Your task to perform on an android device: turn off airplane mode Image 0: 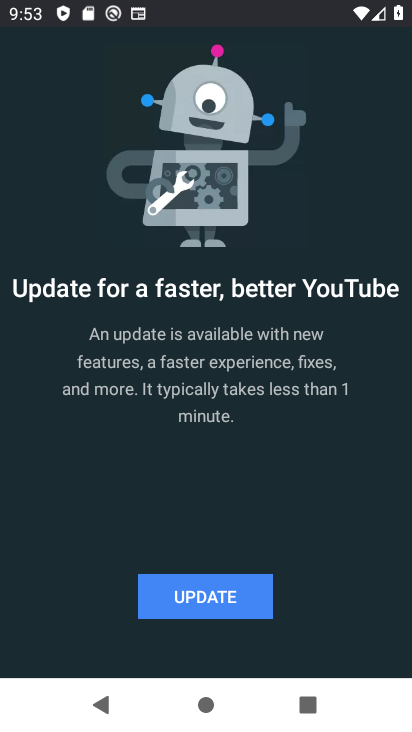
Step 0: press back button
Your task to perform on an android device: turn off airplane mode Image 1: 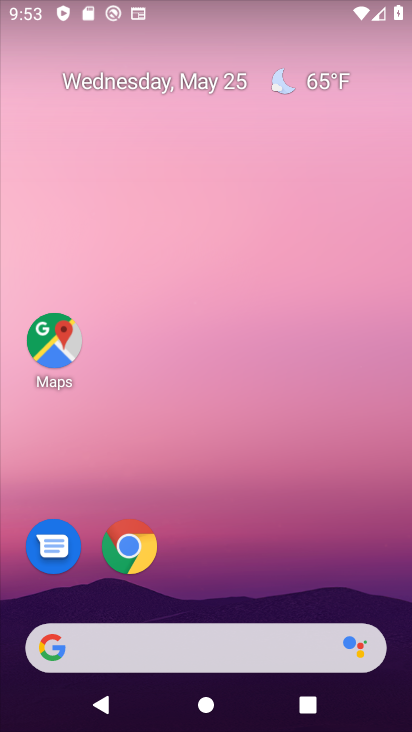
Step 1: drag from (279, 533) to (221, 17)
Your task to perform on an android device: turn off airplane mode Image 2: 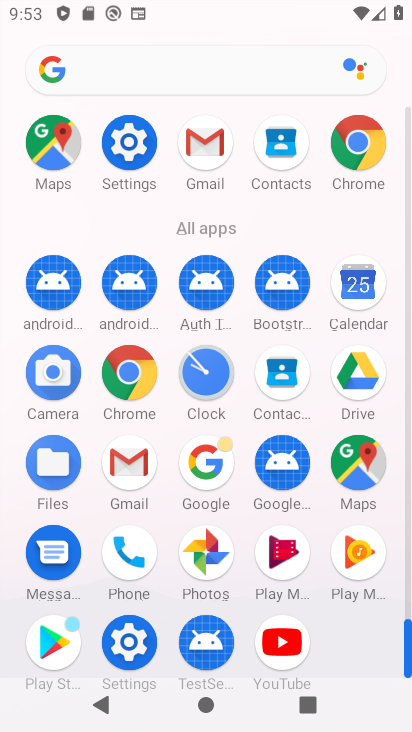
Step 2: click (130, 638)
Your task to perform on an android device: turn off airplane mode Image 3: 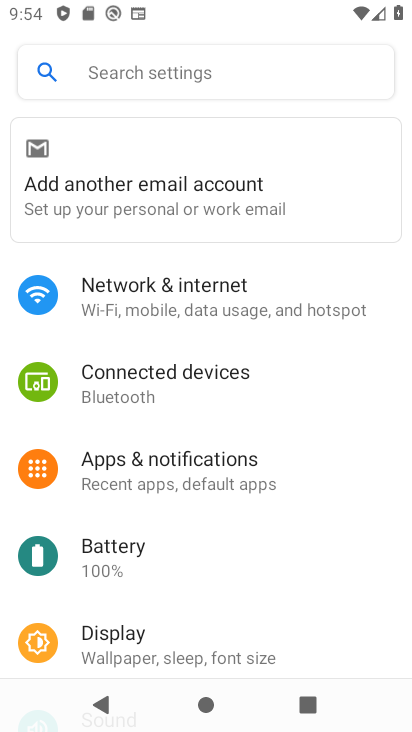
Step 3: click (221, 306)
Your task to perform on an android device: turn off airplane mode Image 4: 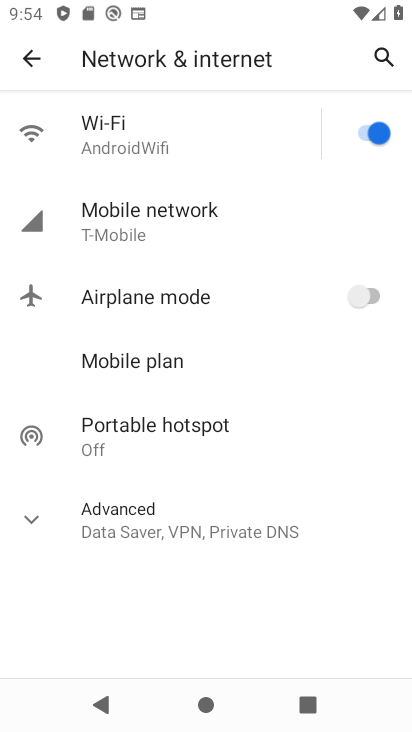
Step 4: click (25, 521)
Your task to perform on an android device: turn off airplane mode Image 5: 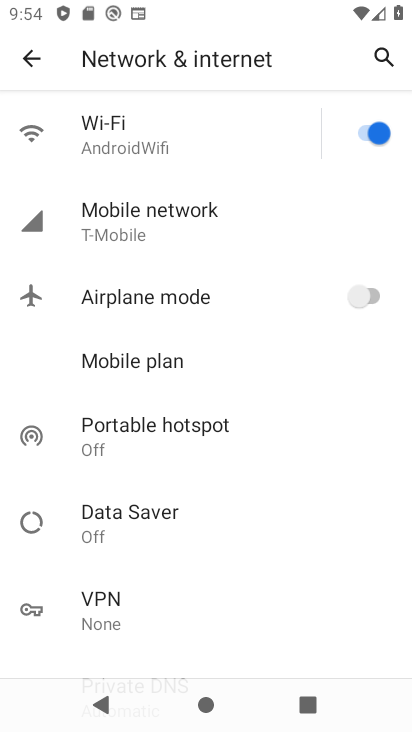
Step 5: task complete